Your task to perform on an android device: turn off location Image 0: 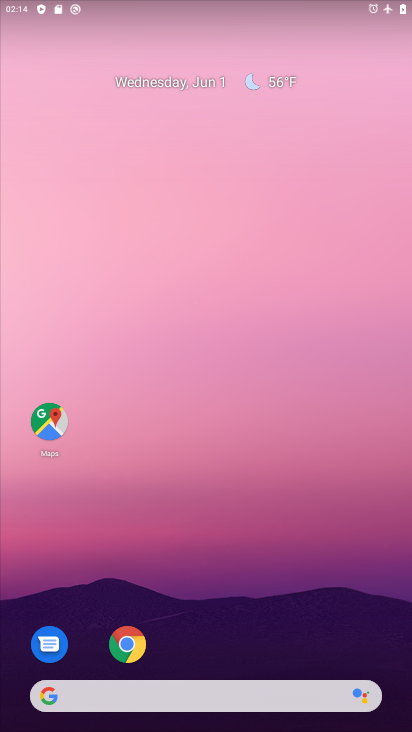
Step 0: drag from (230, 648) to (179, 190)
Your task to perform on an android device: turn off location Image 1: 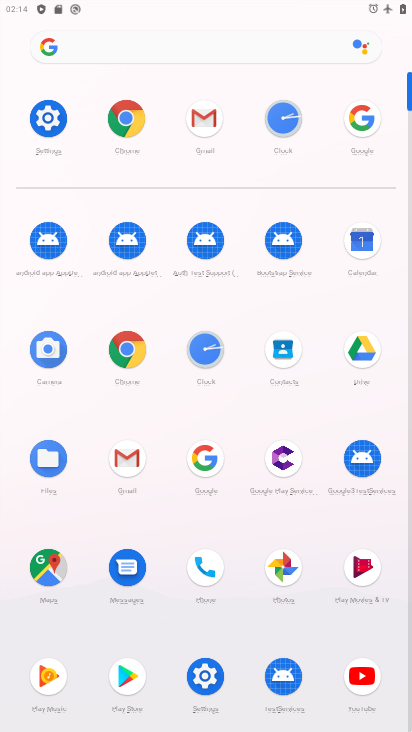
Step 1: click (44, 120)
Your task to perform on an android device: turn off location Image 2: 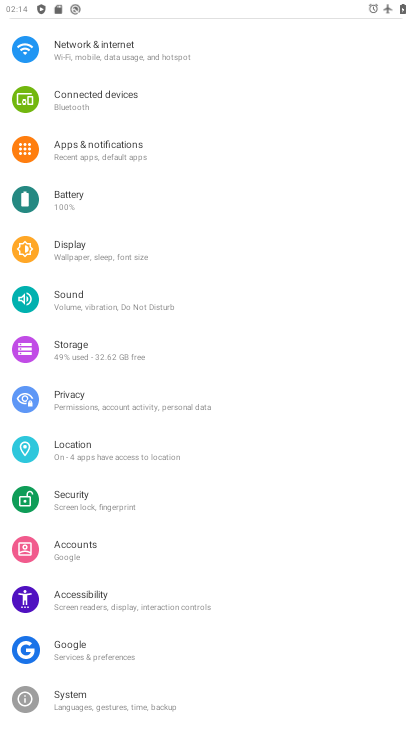
Step 2: click (83, 452)
Your task to perform on an android device: turn off location Image 3: 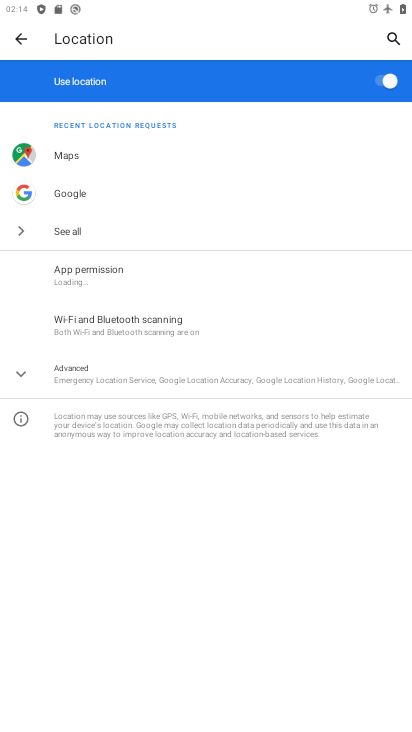
Step 3: click (386, 71)
Your task to perform on an android device: turn off location Image 4: 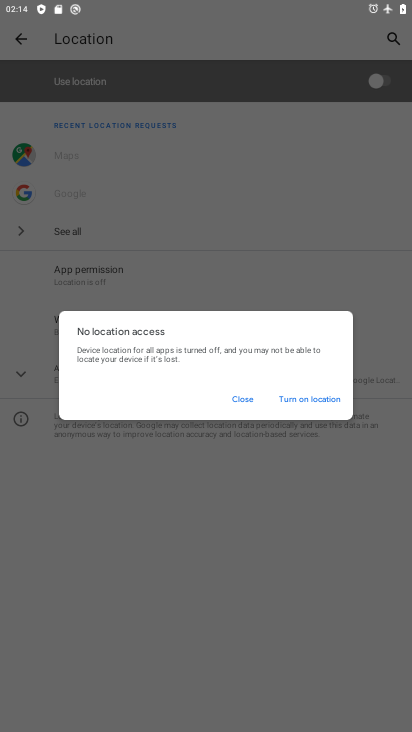
Step 4: click (227, 400)
Your task to perform on an android device: turn off location Image 5: 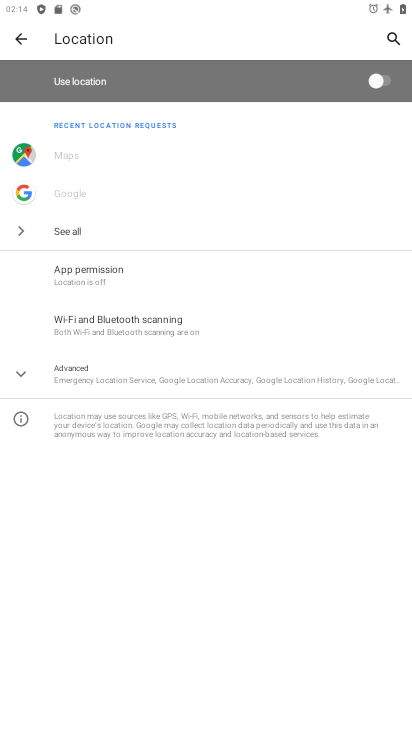
Step 5: task complete